Your task to perform on an android device: turn off airplane mode Image 0: 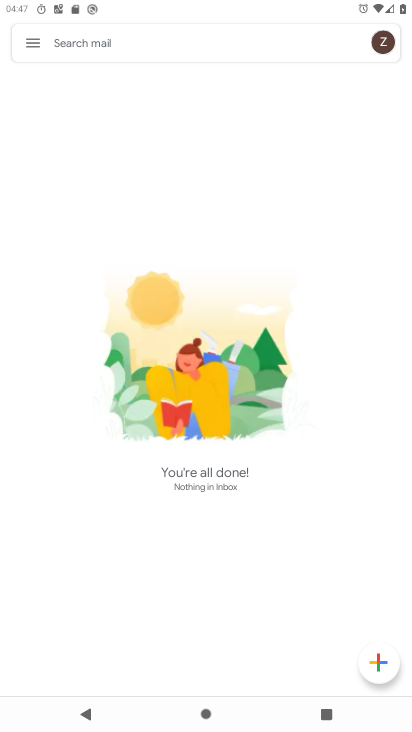
Step 0: press home button
Your task to perform on an android device: turn off airplane mode Image 1: 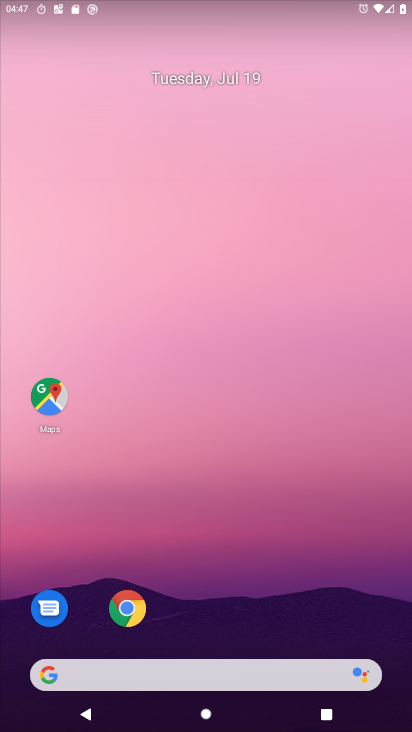
Step 1: drag from (215, 692) to (349, 16)
Your task to perform on an android device: turn off airplane mode Image 2: 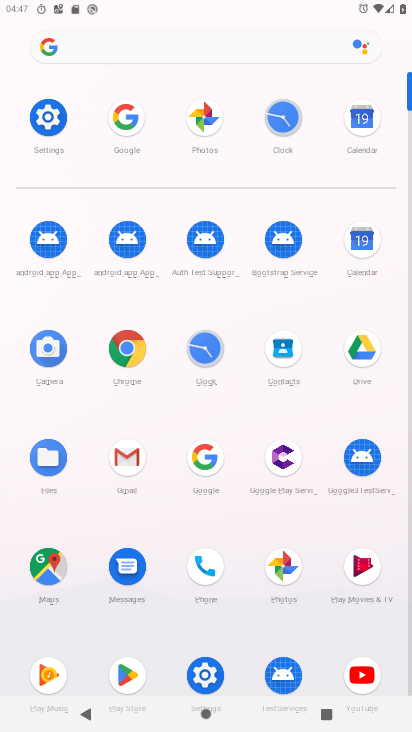
Step 2: click (46, 117)
Your task to perform on an android device: turn off airplane mode Image 3: 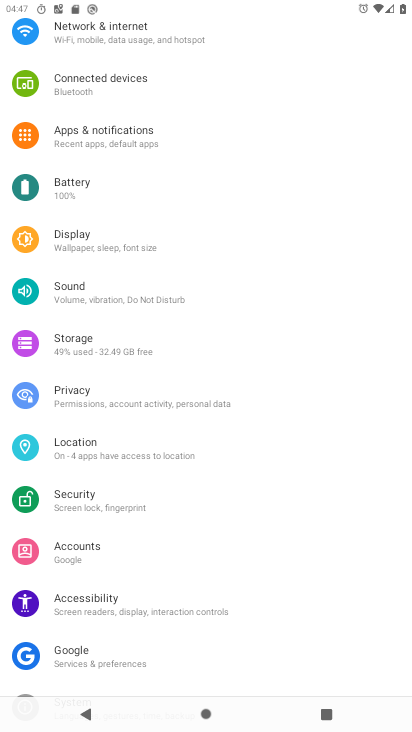
Step 3: click (108, 38)
Your task to perform on an android device: turn off airplane mode Image 4: 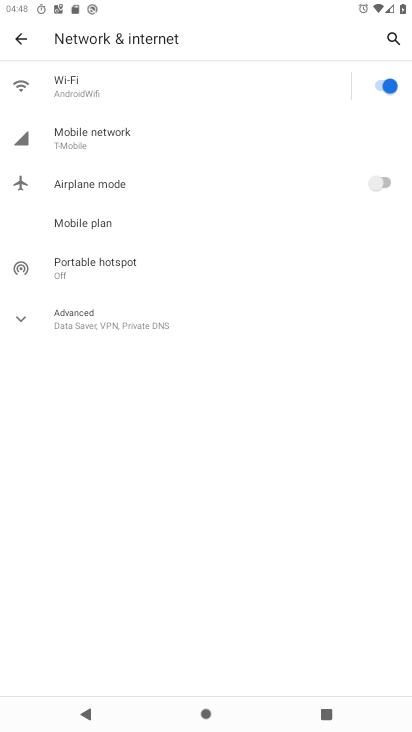
Step 4: task complete